Your task to perform on an android device: turn notification dots on Image 0: 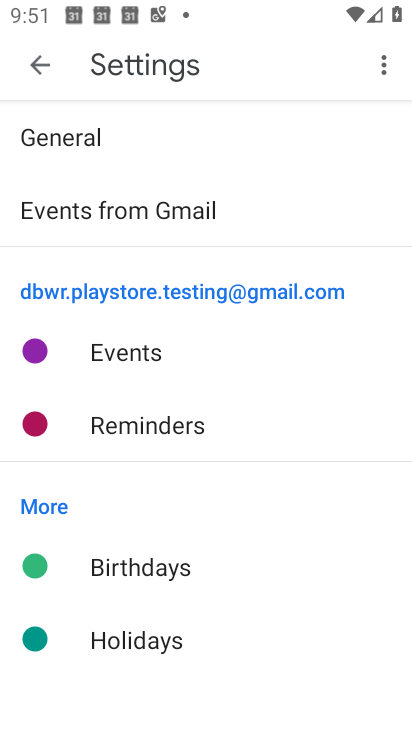
Step 0: press home button
Your task to perform on an android device: turn notification dots on Image 1: 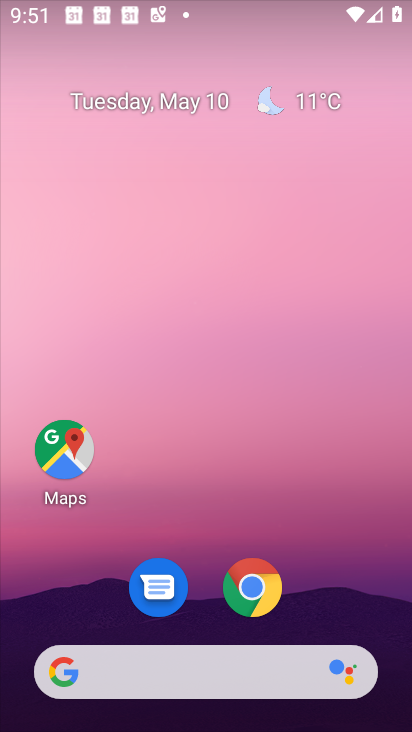
Step 1: drag from (304, 583) to (299, 217)
Your task to perform on an android device: turn notification dots on Image 2: 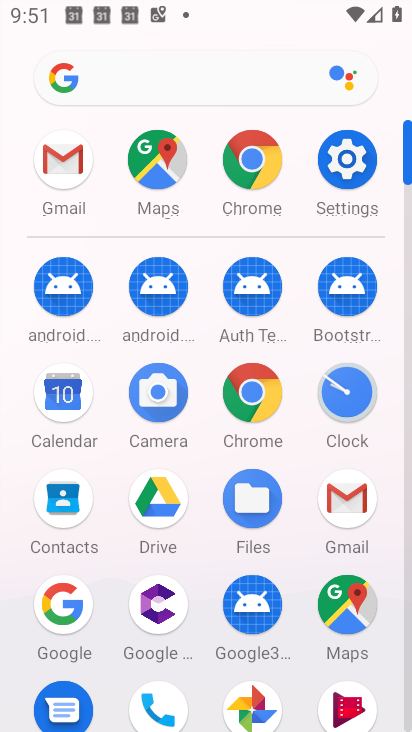
Step 2: click (355, 173)
Your task to perform on an android device: turn notification dots on Image 3: 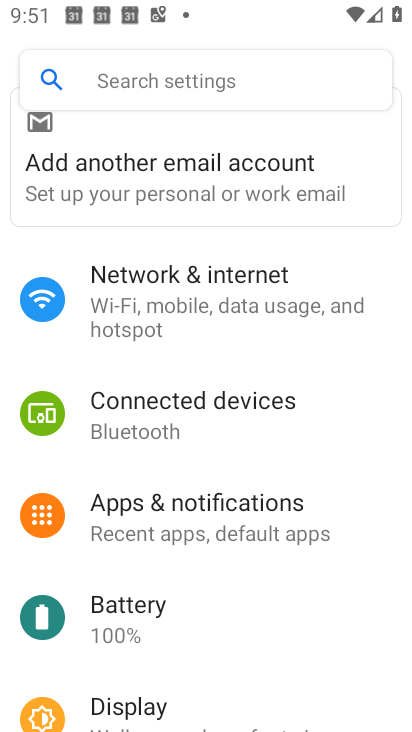
Step 3: click (245, 523)
Your task to perform on an android device: turn notification dots on Image 4: 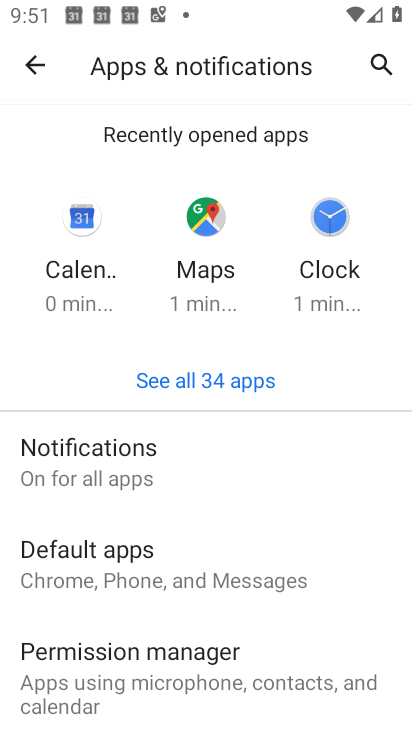
Step 4: click (159, 469)
Your task to perform on an android device: turn notification dots on Image 5: 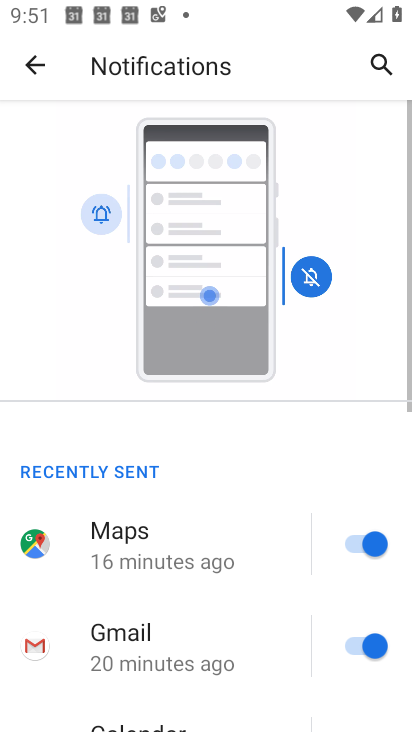
Step 5: drag from (259, 616) to (278, 257)
Your task to perform on an android device: turn notification dots on Image 6: 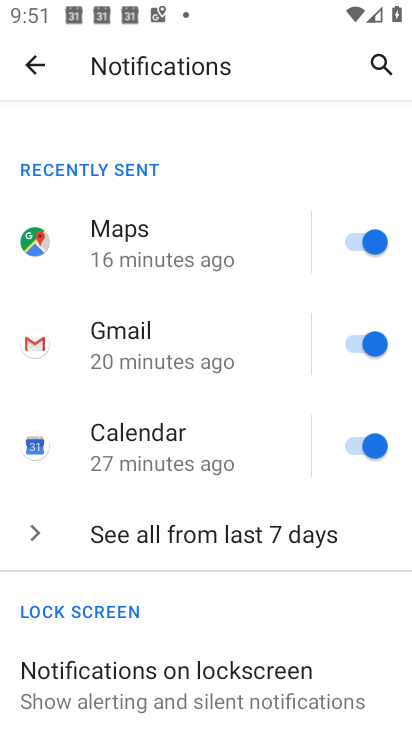
Step 6: drag from (266, 631) to (290, 288)
Your task to perform on an android device: turn notification dots on Image 7: 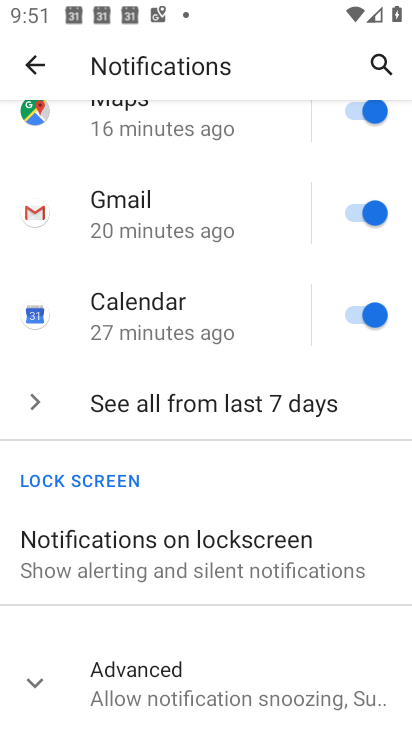
Step 7: click (264, 679)
Your task to perform on an android device: turn notification dots on Image 8: 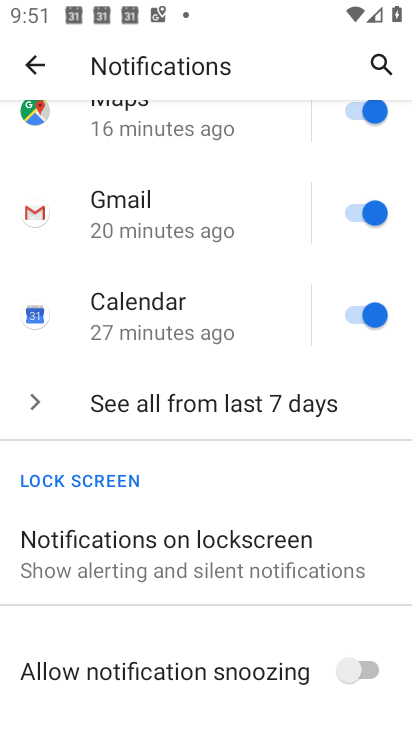
Step 8: drag from (210, 706) to (191, 396)
Your task to perform on an android device: turn notification dots on Image 9: 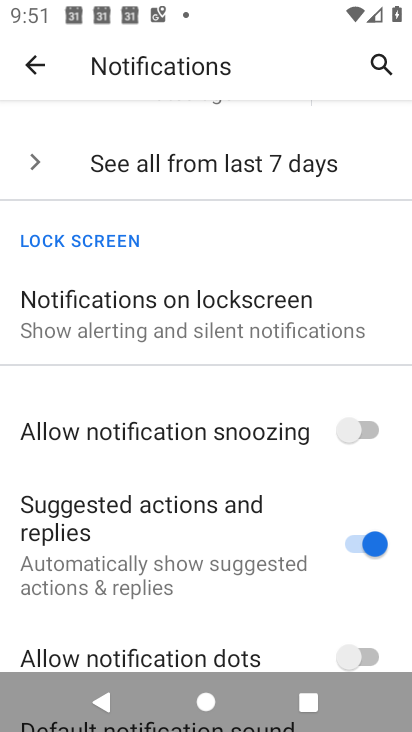
Step 9: drag from (212, 616) to (211, 410)
Your task to perform on an android device: turn notification dots on Image 10: 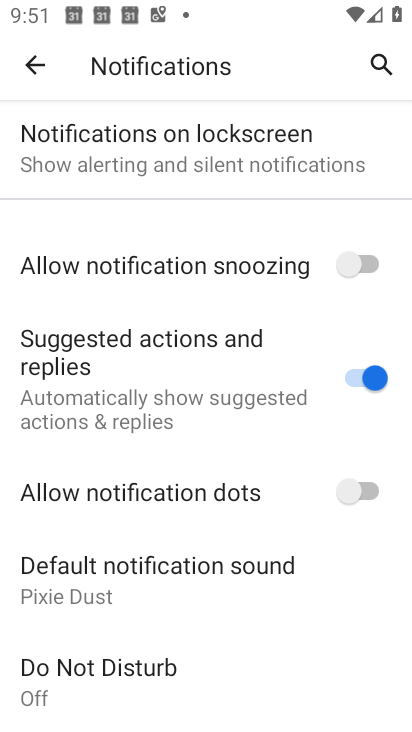
Step 10: click (366, 495)
Your task to perform on an android device: turn notification dots on Image 11: 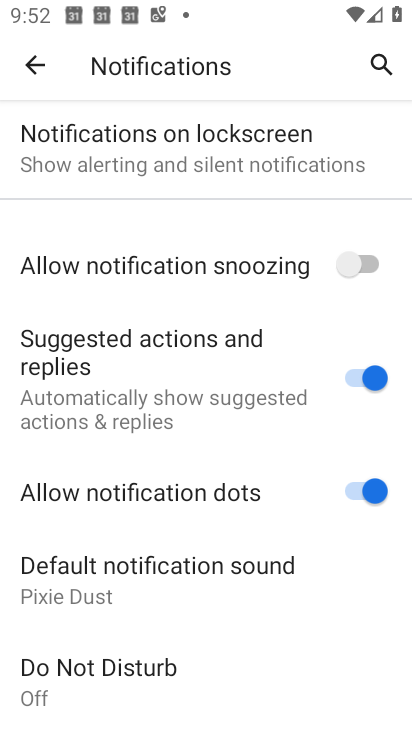
Step 11: task complete